Your task to perform on an android device: open app "McDonald's" (install if not already installed) Image 0: 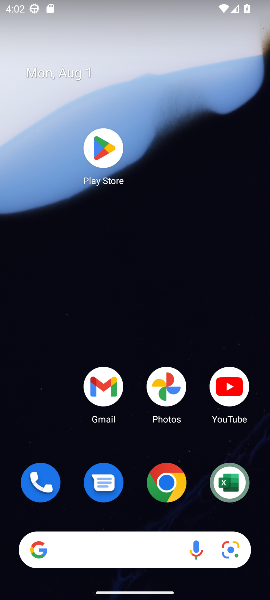
Step 0: press home button
Your task to perform on an android device: open app "McDonald's" (install if not already installed) Image 1: 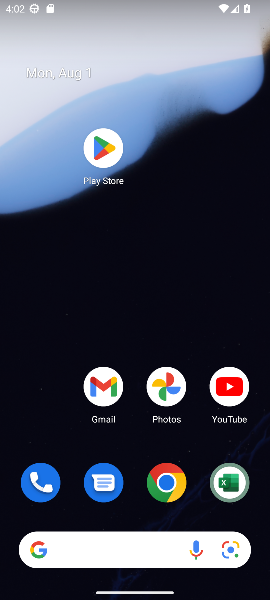
Step 1: click (101, 152)
Your task to perform on an android device: open app "McDonald's" (install if not already installed) Image 2: 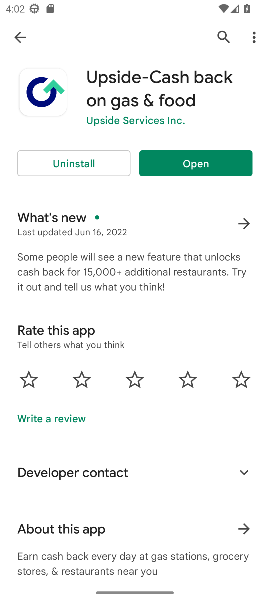
Step 2: click (223, 36)
Your task to perform on an android device: open app "McDonald's" (install if not already installed) Image 3: 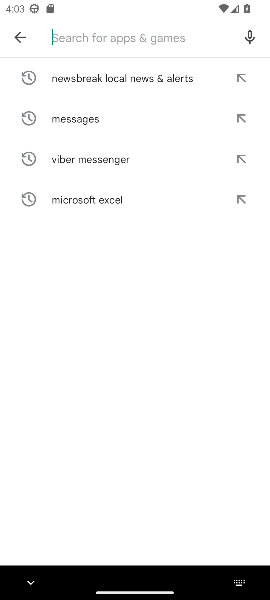
Step 3: type "McDonald's"
Your task to perform on an android device: open app "McDonald's" (install if not already installed) Image 4: 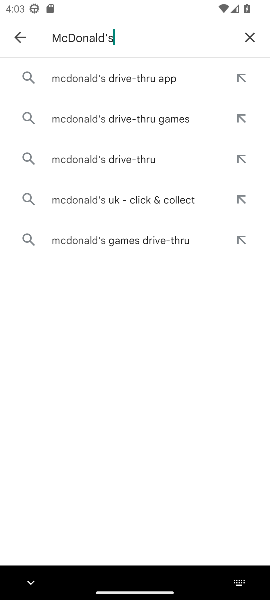
Step 4: click (130, 75)
Your task to perform on an android device: open app "McDonald's" (install if not already installed) Image 5: 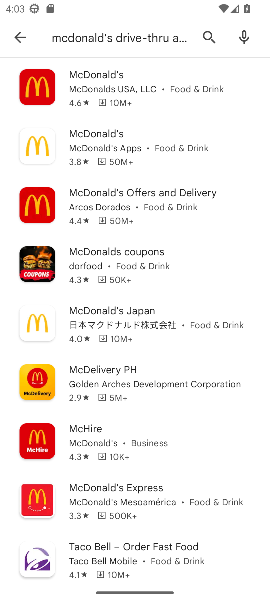
Step 5: click (93, 82)
Your task to perform on an android device: open app "McDonald's" (install if not already installed) Image 6: 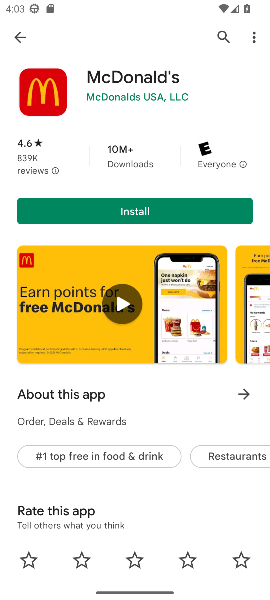
Step 6: click (139, 210)
Your task to perform on an android device: open app "McDonald's" (install if not already installed) Image 7: 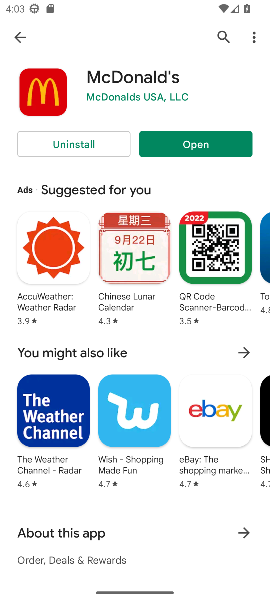
Step 7: click (205, 141)
Your task to perform on an android device: open app "McDonald's" (install if not already installed) Image 8: 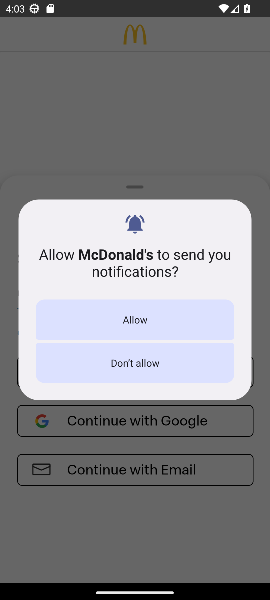
Step 8: click (184, 360)
Your task to perform on an android device: open app "McDonald's" (install if not already installed) Image 9: 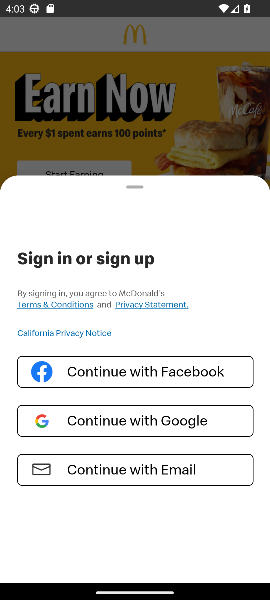
Step 9: task complete